Your task to perform on an android device: Check the news Image 0: 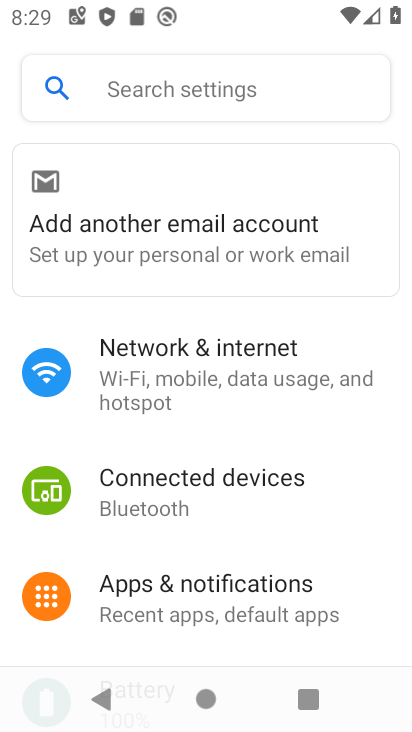
Step 0: press home button
Your task to perform on an android device: Check the news Image 1: 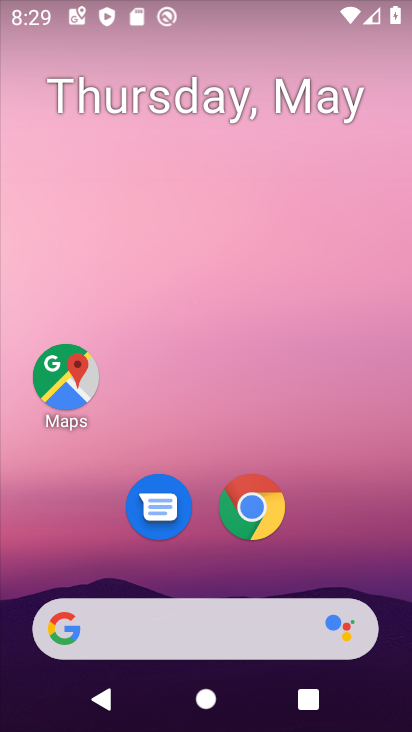
Step 1: click (263, 643)
Your task to perform on an android device: Check the news Image 2: 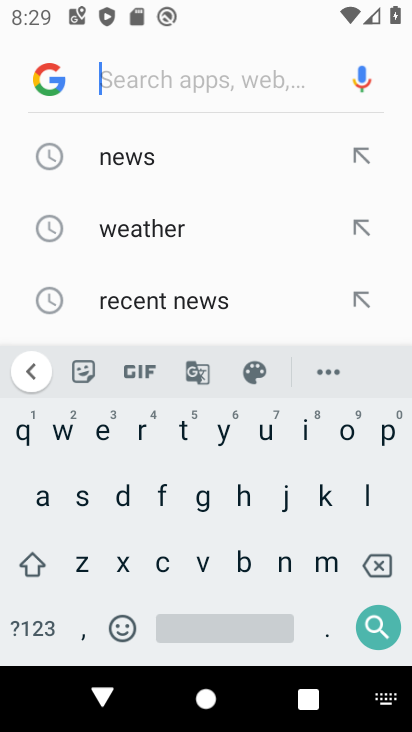
Step 2: click (148, 155)
Your task to perform on an android device: Check the news Image 3: 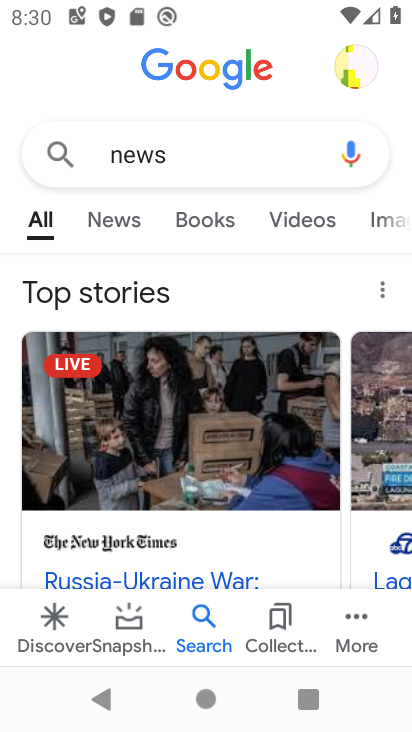
Step 3: task complete